Your task to perform on an android device: Go to ESPN.com Image 0: 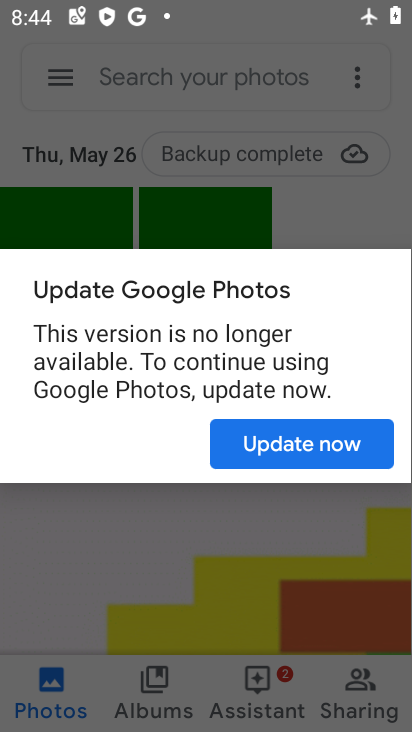
Step 0: press home button
Your task to perform on an android device: Go to ESPN.com Image 1: 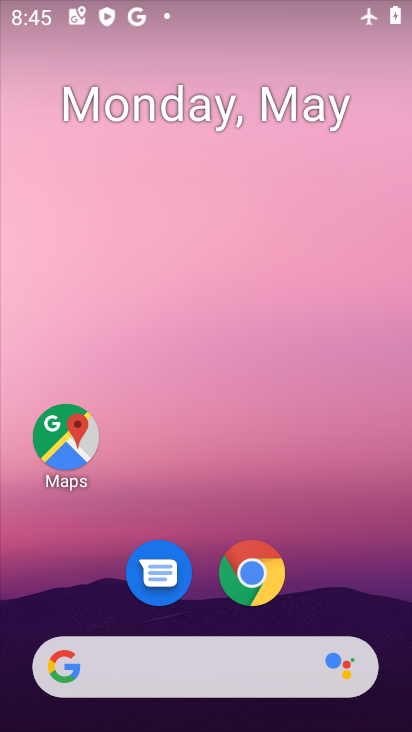
Step 1: drag from (195, 642) to (224, 120)
Your task to perform on an android device: Go to ESPN.com Image 2: 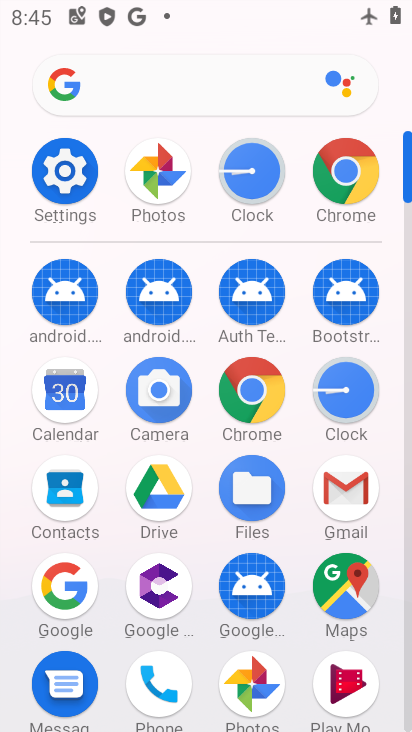
Step 2: click (355, 179)
Your task to perform on an android device: Go to ESPN.com Image 3: 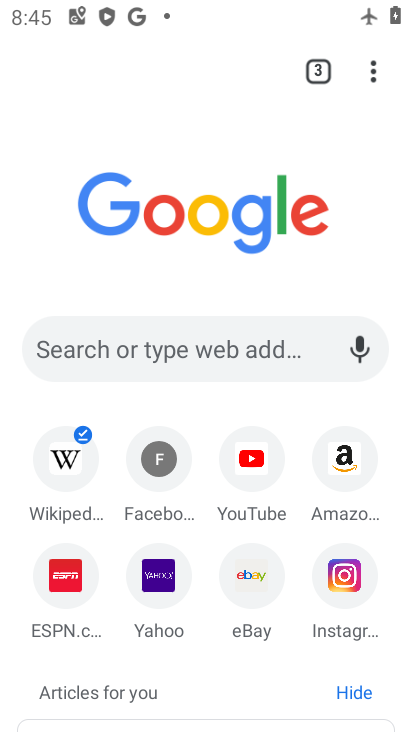
Step 3: click (62, 590)
Your task to perform on an android device: Go to ESPN.com Image 4: 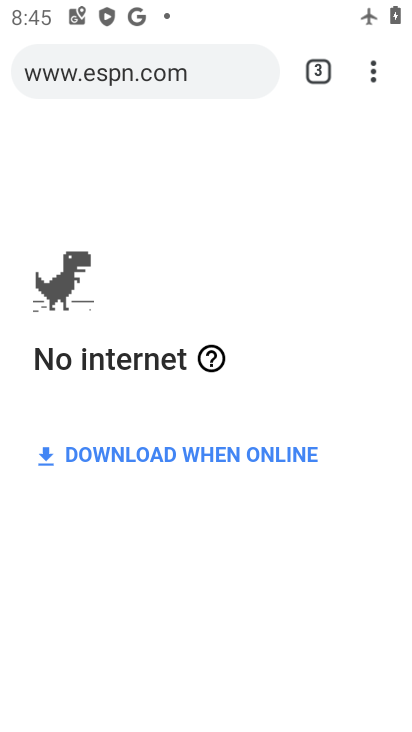
Step 4: task complete